Your task to perform on an android device: What is the news today? Image 0: 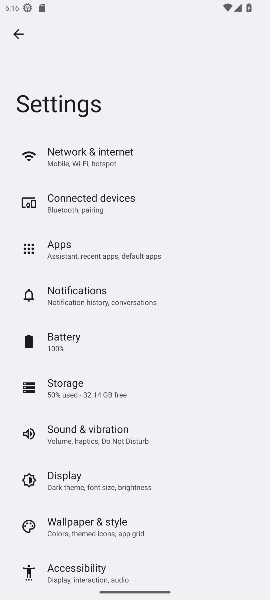
Step 0: press home button
Your task to perform on an android device: What is the news today? Image 1: 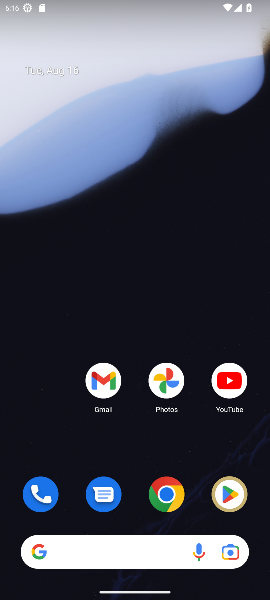
Step 1: drag from (58, 456) to (71, 155)
Your task to perform on an android device: What is the news today? Image 2: 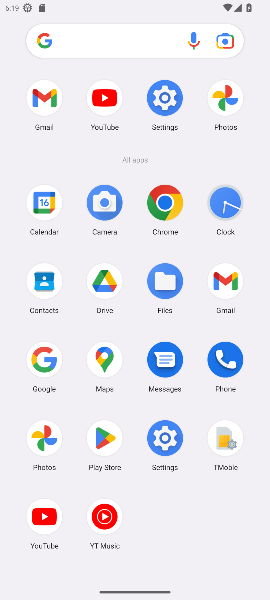
Step 2: drag from (172, 594) to (4, 599)
Your task to perform on an android device: What is the news today? Image 3: 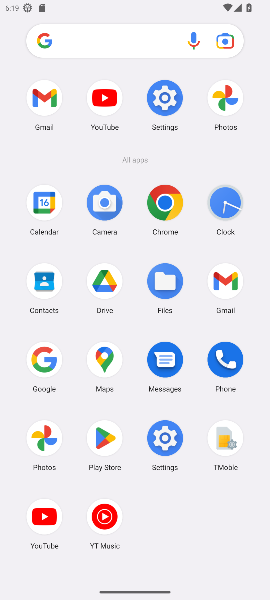
Step 3: click (159, 199)
Your task to perform on an android device: What is the news today? Image 4: 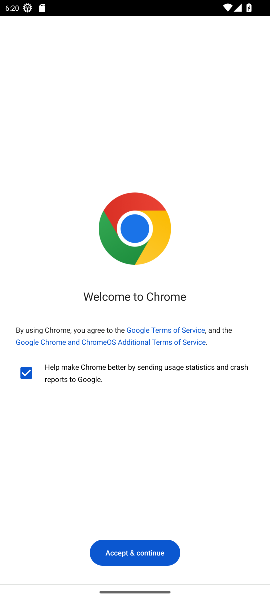
Step 4: click (138, 558)
Your task to perform on an android device: What is the news today? Image 5: 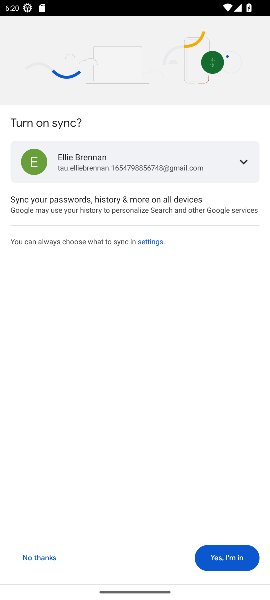
Step 5: click (227, 554)
Your task to perform on an android device: What is the news today? Image 6: 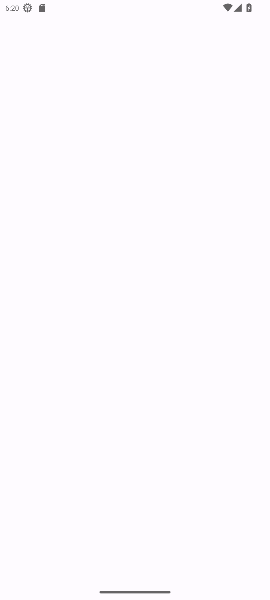
Step 6: task complete